Your task to perform on an android device: set default search engine in the chrome app Image 0: 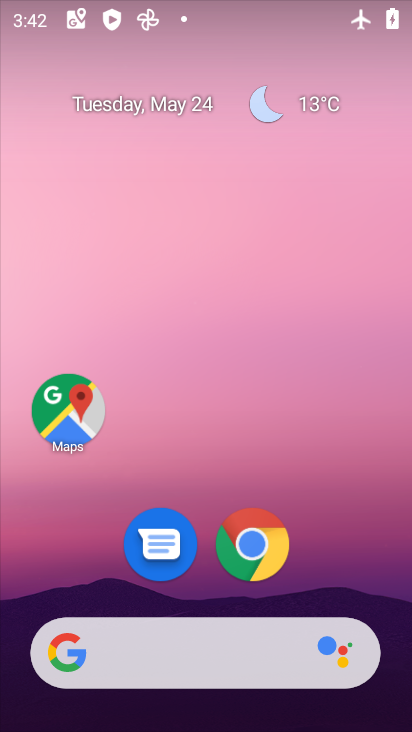
Step 0: click (271, 556)
Your task to perform on an android device: set default search engine in the chrome app Image 1: 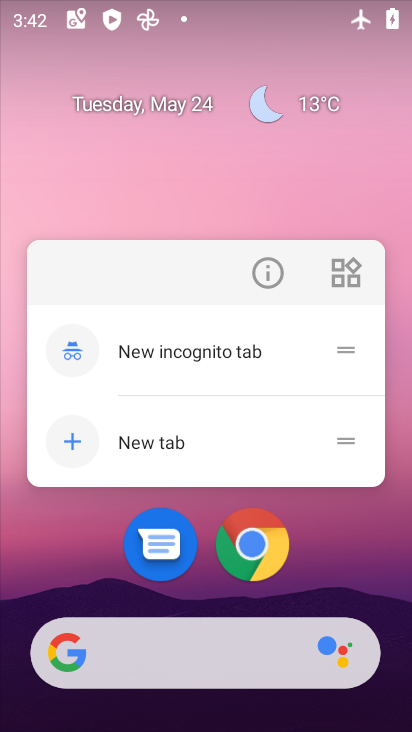
Step 1: click (298, 564)
Your task to perform on an android device: set default search engine in the chrome app Image 2: 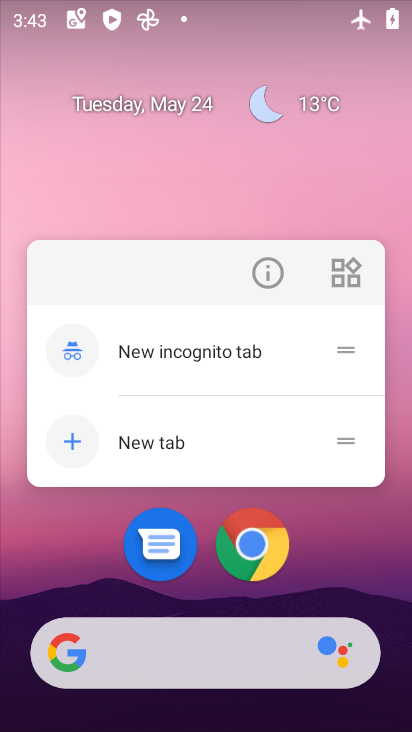
Step 2: click (249, 569)
Your task to perform on an android device: set default search engine in the chrome app Image 3: 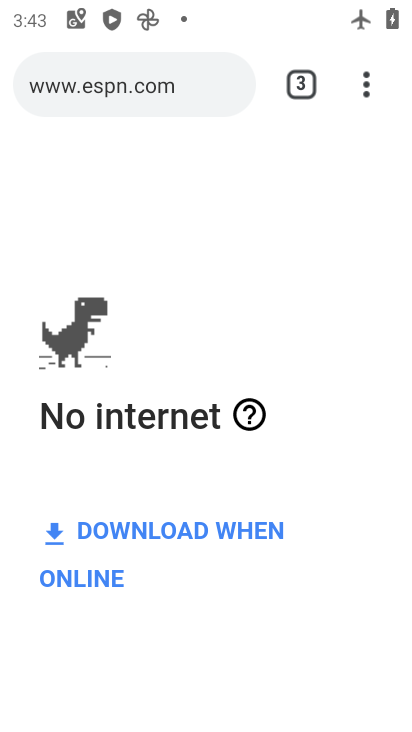
Step 3: drag from (364, 89) to (103, 606)
Your task to perform on an android device: set default search engine in the chrome app Image 4: 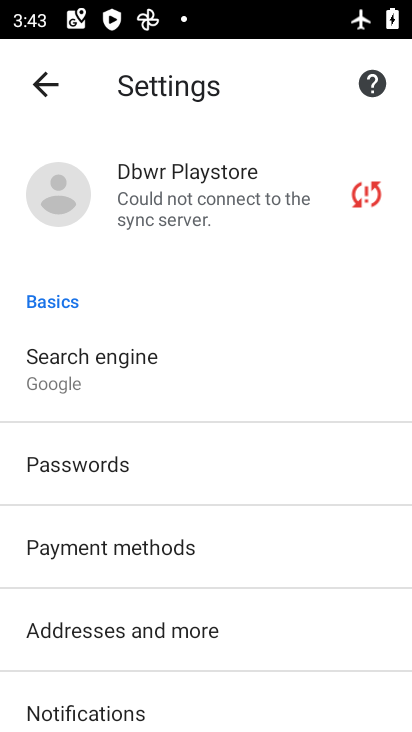
Step 4: click (52, 402)
Your task to perform on an android device: set default search engine in the chrome app Image 5: 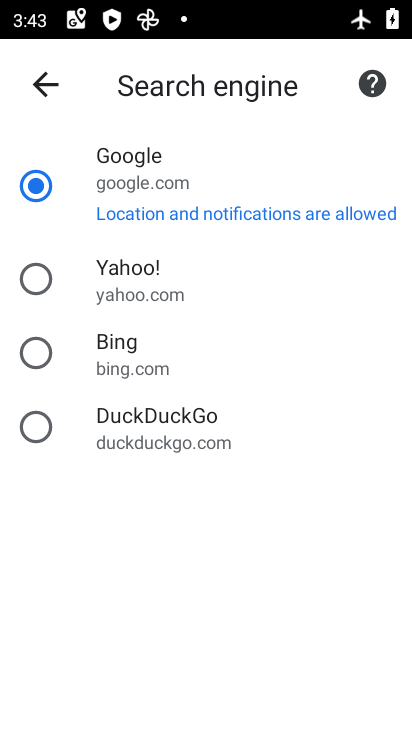
Step 5: task complete